Your task to perform on an android device: turn off notifications in google photos Image 0: 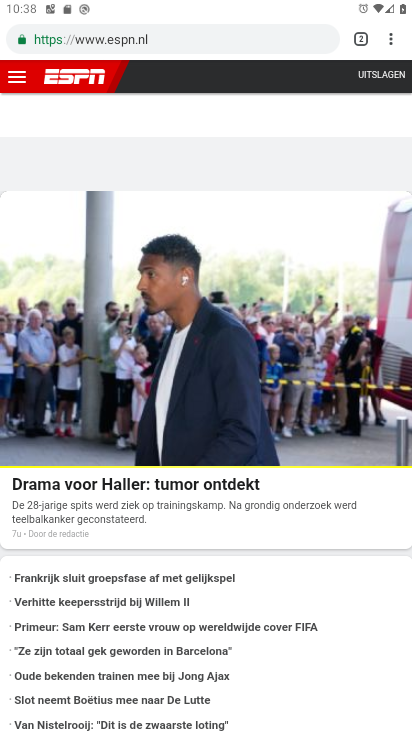
Step 0: click (389, 45)
Your task to perform on an android device: turn off notifications in google photos Image 1: 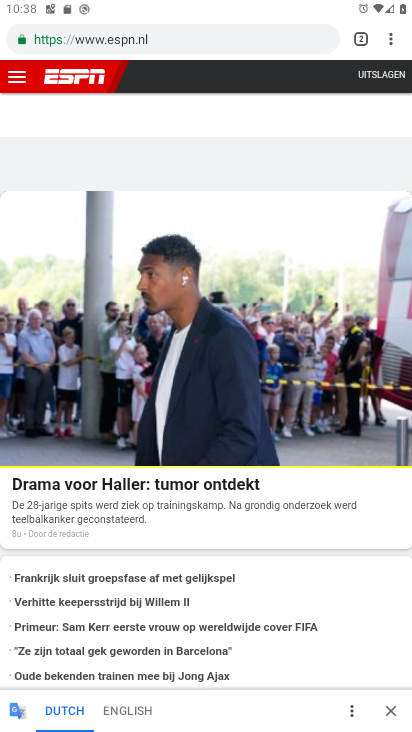
Step 1: click (390, 37)
Your task to perform on an android device: turn off notifications in google photos Image 2: 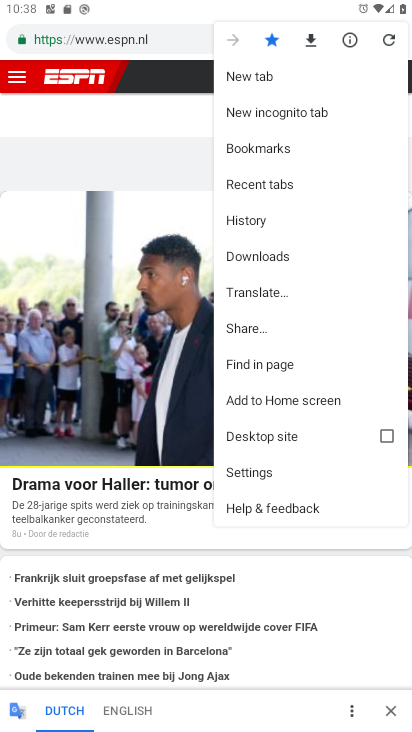
Step 2: click (258, 476)
Your task to perform on an android device: turn off notifications in google photos Image 3: 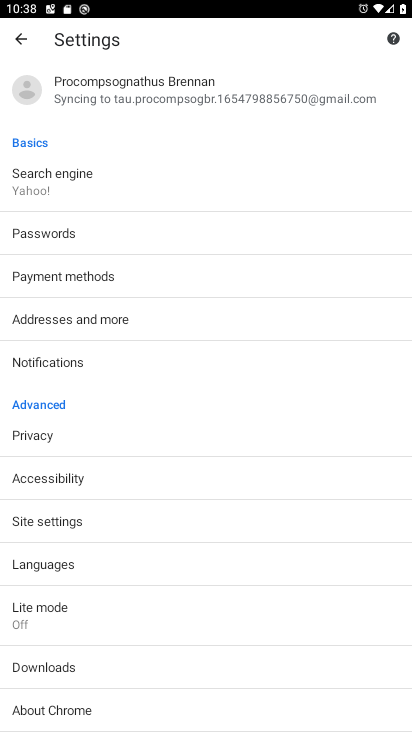
Step 3: task complete